Your task to perform on an android device: Go to settings Image 0: 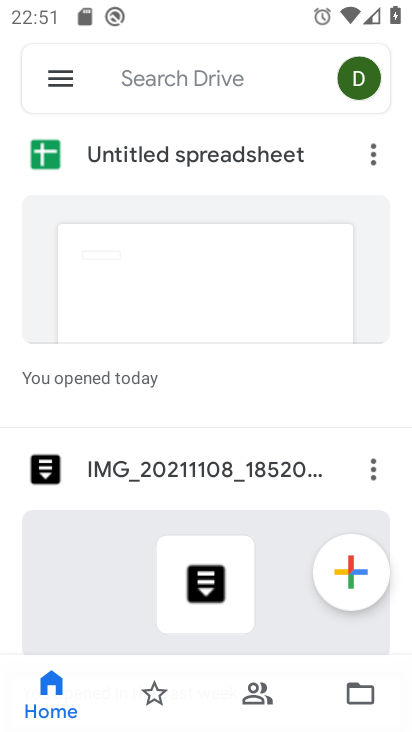
Step 0: press home button
Your task to perform on an android device: Go to settings Image 1: 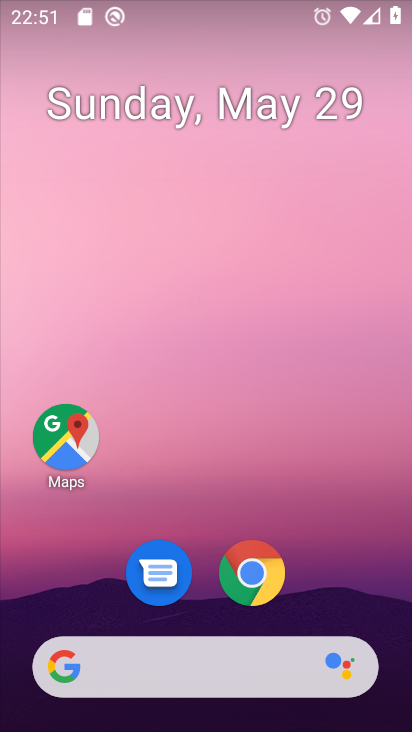
Step 1: drag from (191, 496) to (185, 0)
Your task to perform on an android device: Go to settings Image 2: 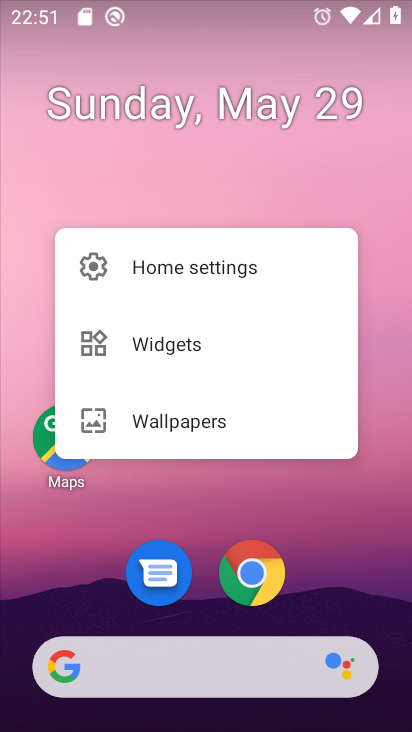
Step 2: click (326, 472)
Your task to perform on an android device: Go to settings Image 3: 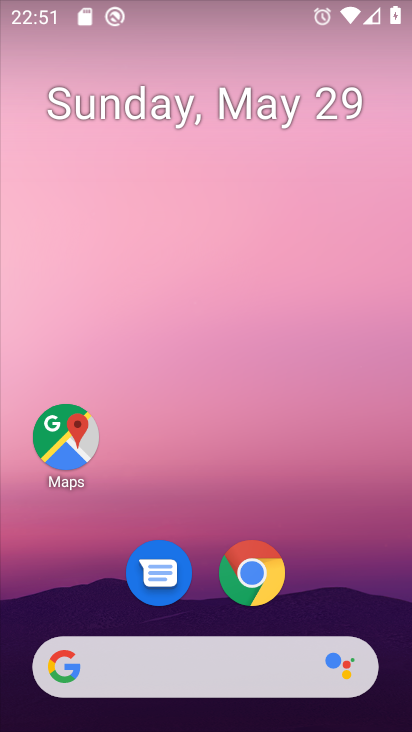
Step 3: drag from (207, 499) to (233, 0)
Your task to perform on an android device: Go to settings Image 4: 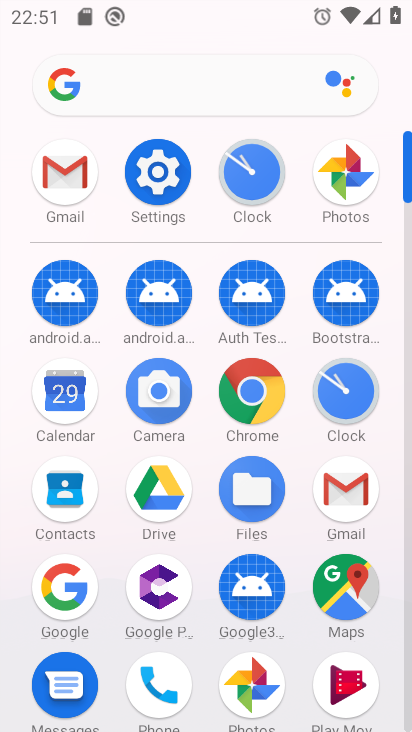
Step 4: click (163, 169)
Your task to perform on an android device: Go to settings Image 5: 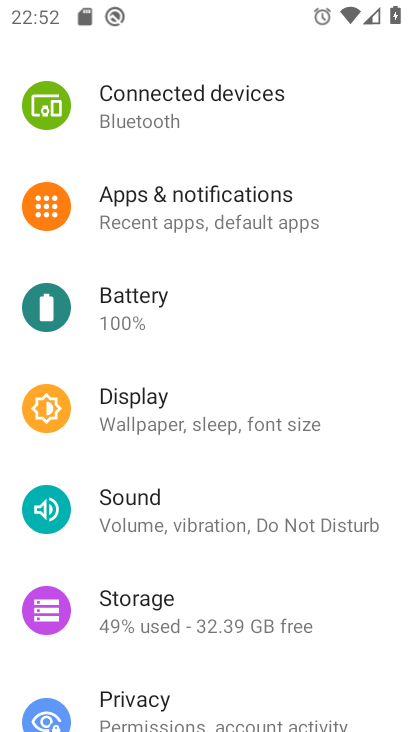
Step 5: task complete